Your task to perform on an android device: change your default location settings in chrome Image 0: 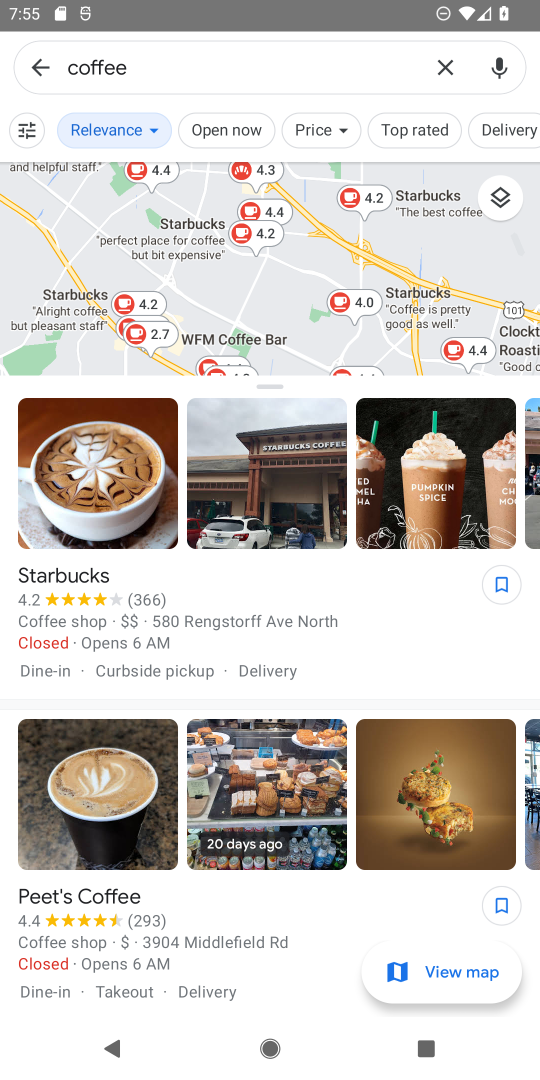
Step 0: press home button
Your task to perform on an android device: change your default location settings in chrome Image 1: 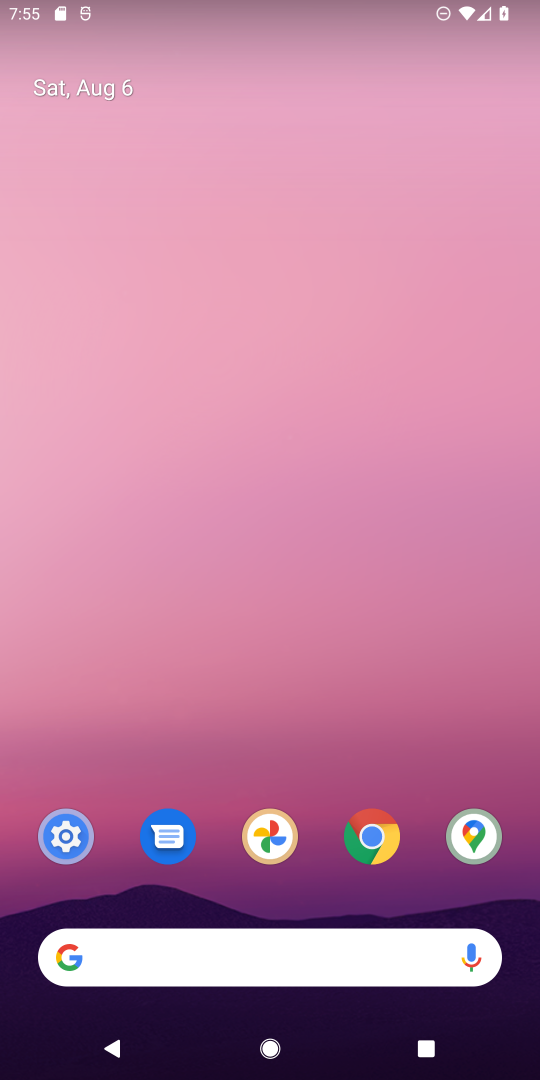
Step 1: click (373, 835)
Your task to perform on an android device: change your default location settings in chrome Image 2: 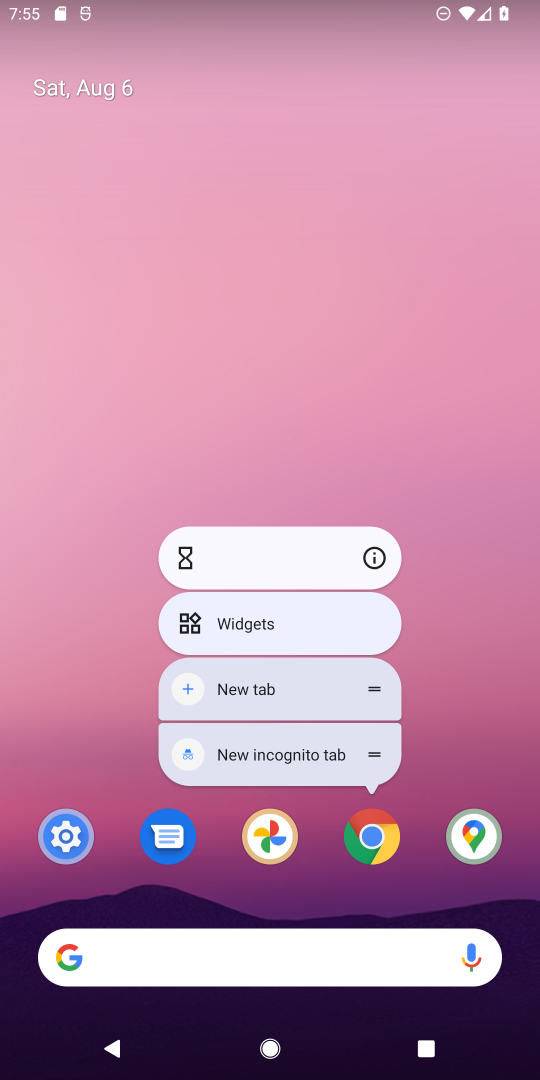
Step 2: click (373, 846)
Your task to perform on an android device: change your default location settings in chrome Image 3: 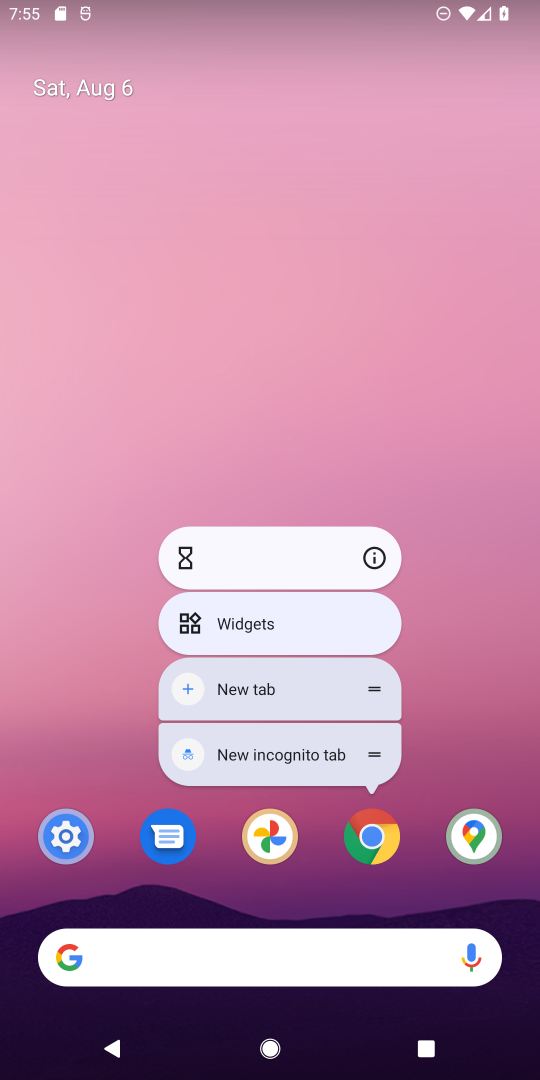
Step 3: click (373, 846)
Your task to perform on an android device: change your default location settings in chrome Image 4: 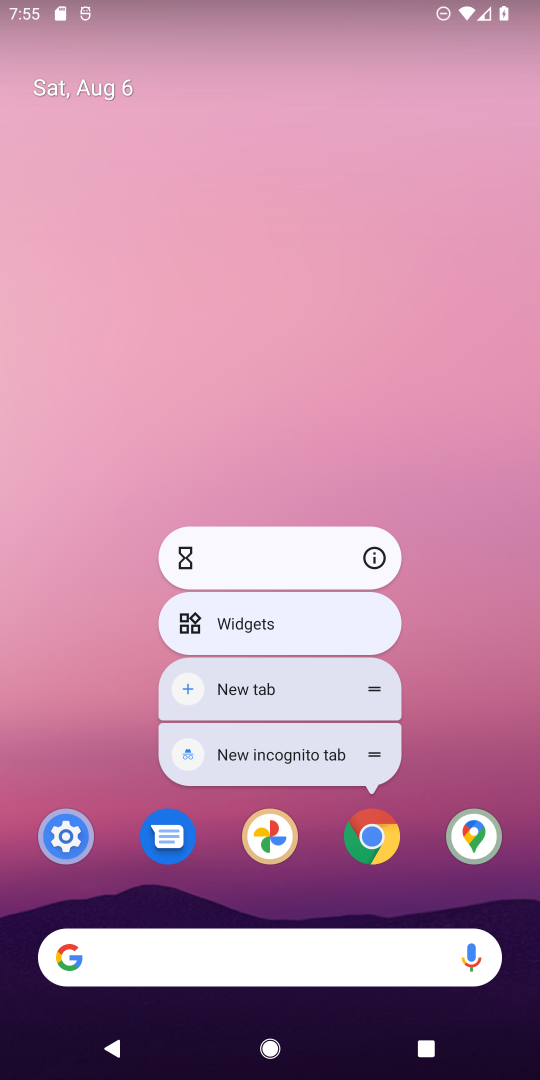
Step 4: click (371, 834)
Your task to perform on an android device: change your default location settings in chrome Image 5: 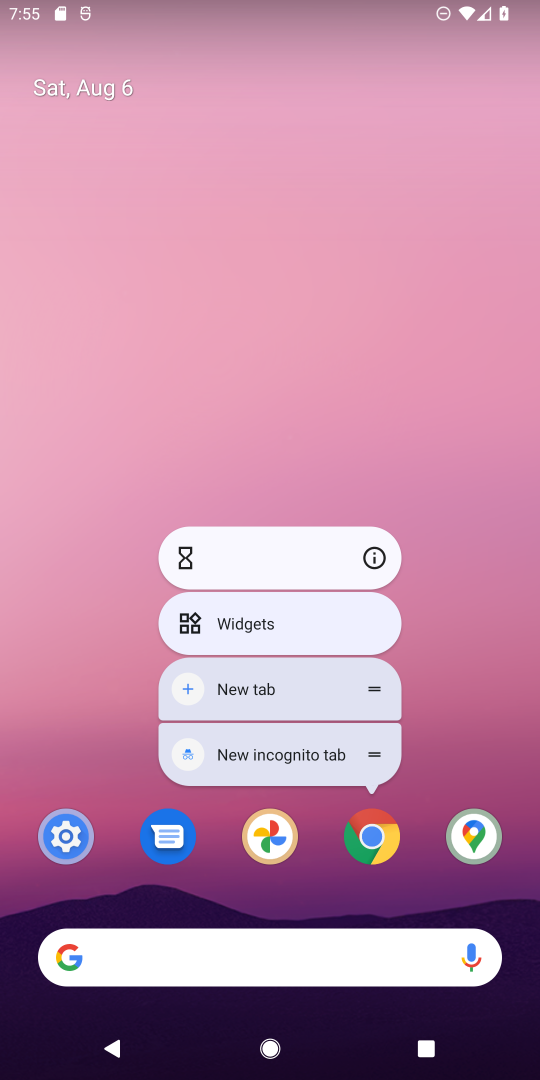
Step 5: click (371, 834)
Your task to perform on an android device: change your default location settings in chrome Image 6: 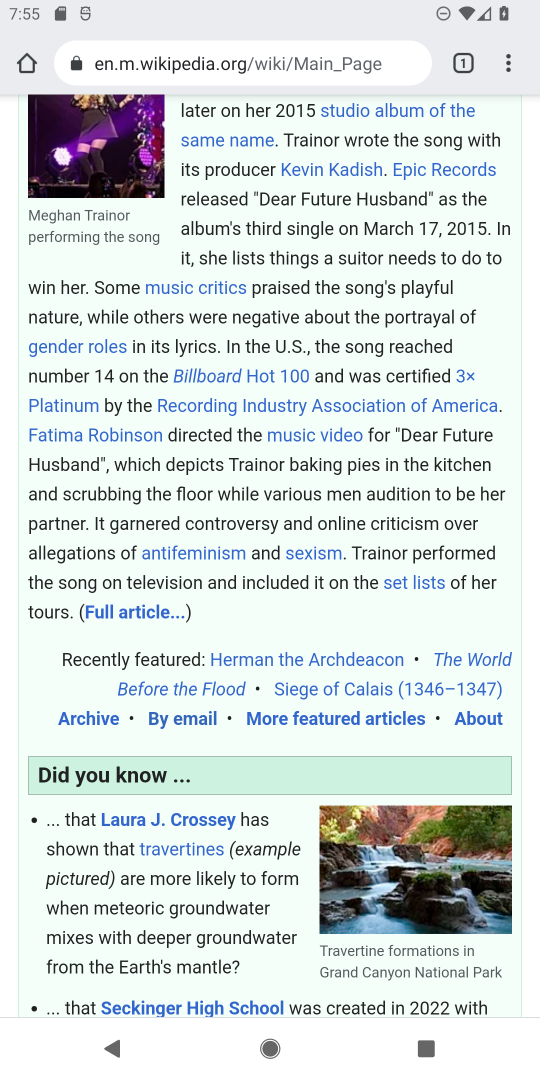
Step 6: click (503, 63)
Your task to perform on an android device: change your default location settings in chrome Image 7: 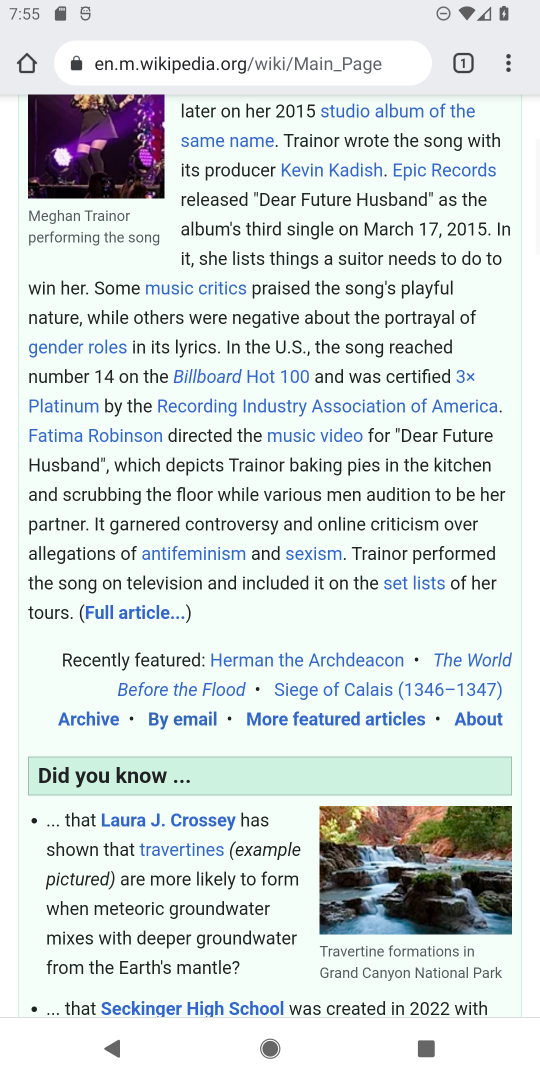
Step 7: click (503, 63)
Your task to perform on an android device: change your default location settings in chrome Image 8: 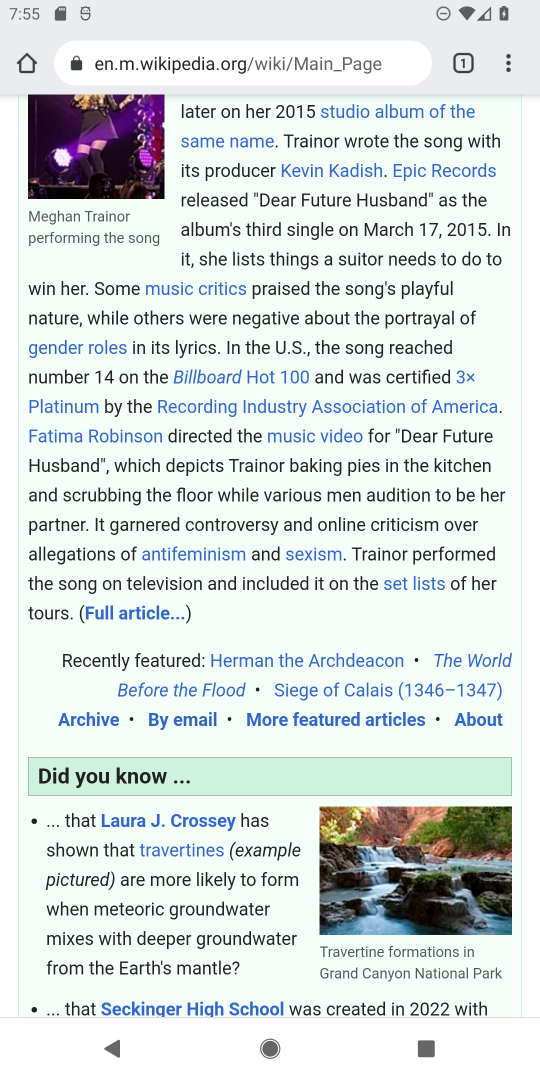
Step 8: click (503, 63)
Your task to perform on an android device: change your default location settings in chrome Image 9: 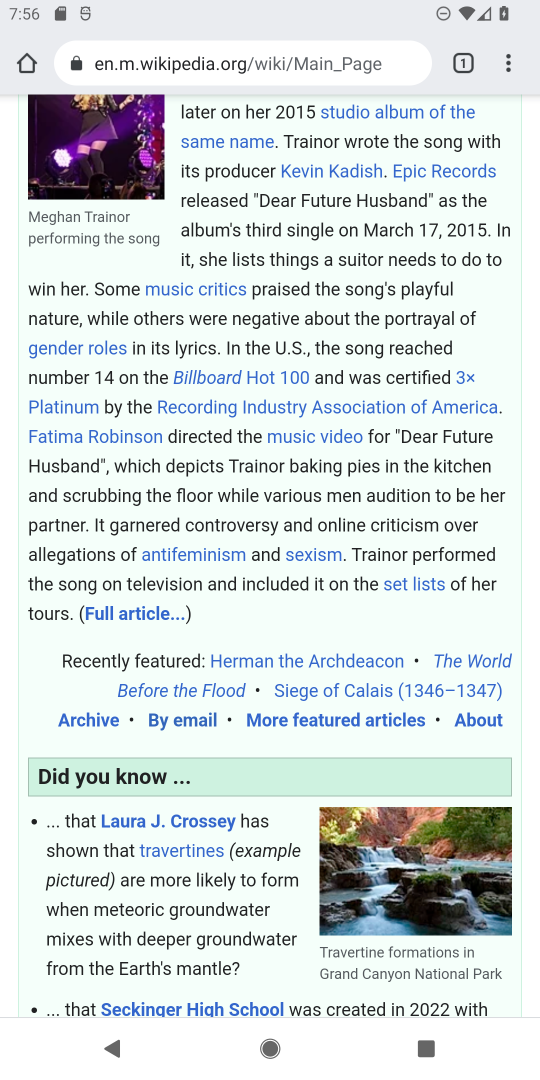
Step 9: click (504, 68)
Your task to perform on an android device: change your default location settings in chrome Image 10: 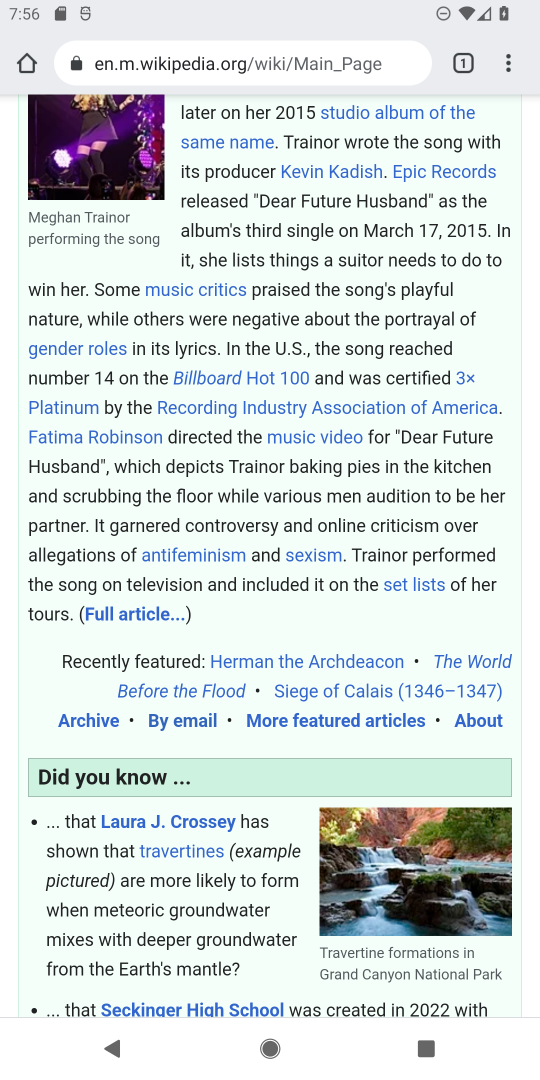
Step 10: click (504, 68)
Your task to perform on an android device: change your default location settings in chrome Image 11: 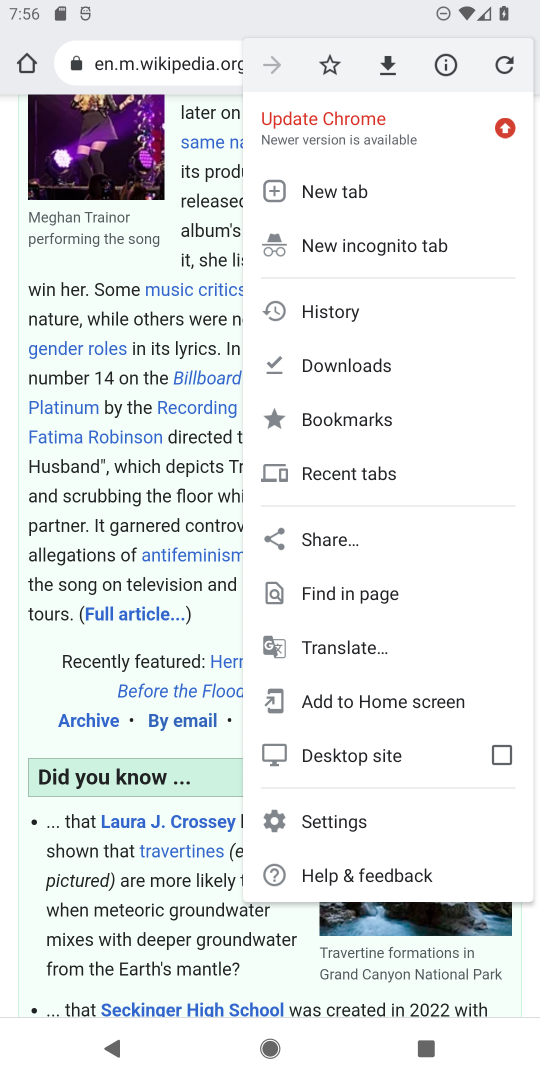
Step 11: click (339, 832)
Your task to perform on an android device: change your default location settings in chrome Image 12: 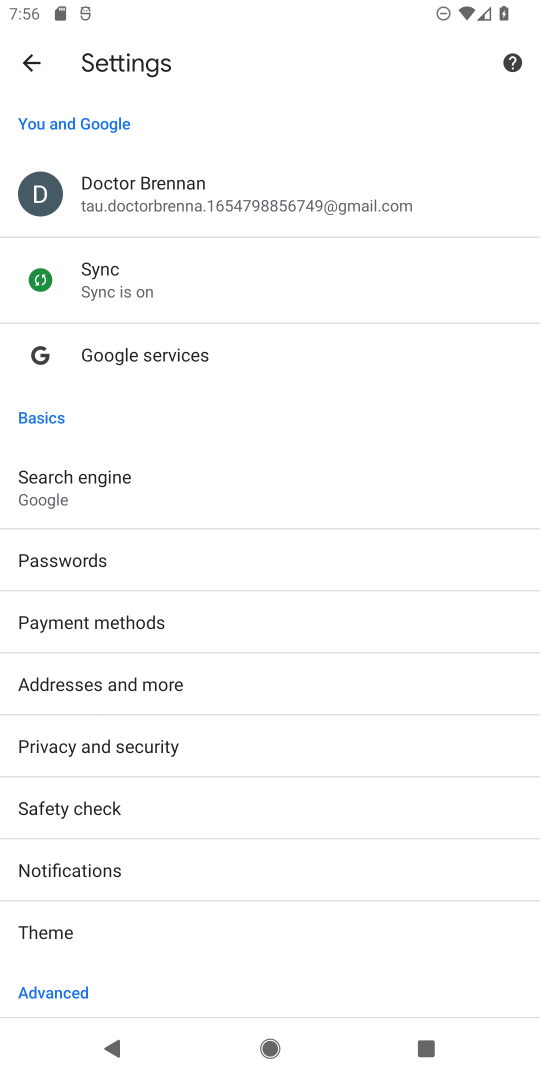
Step 12: drag from (53, 958) to (66, 602)
Your task to perform on an android device: change your default location settings in chrome Image 13: 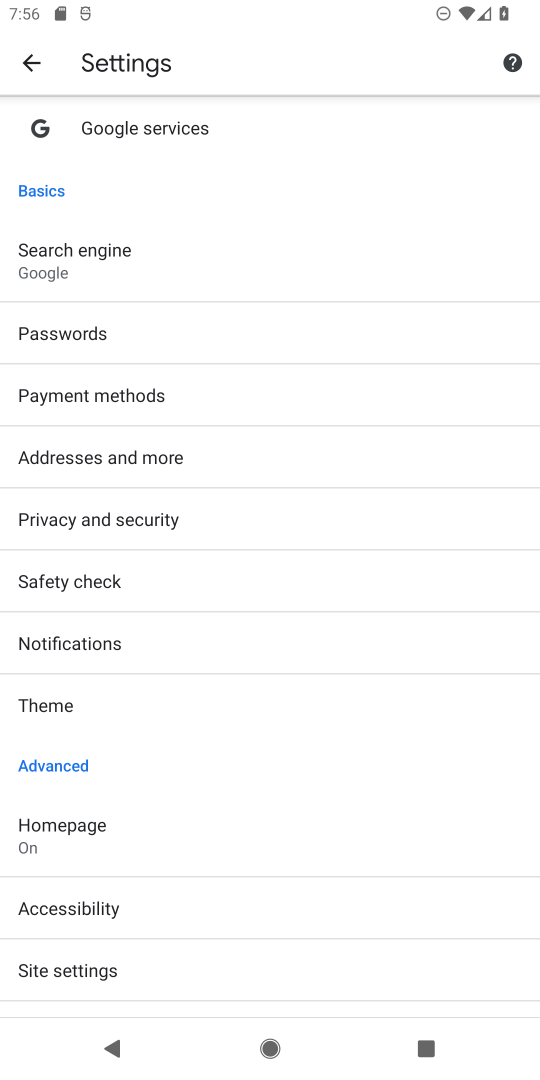
Step 13: click (78, 966)
Your task to perform on an android device: change your default location settings in chrome Image 14: 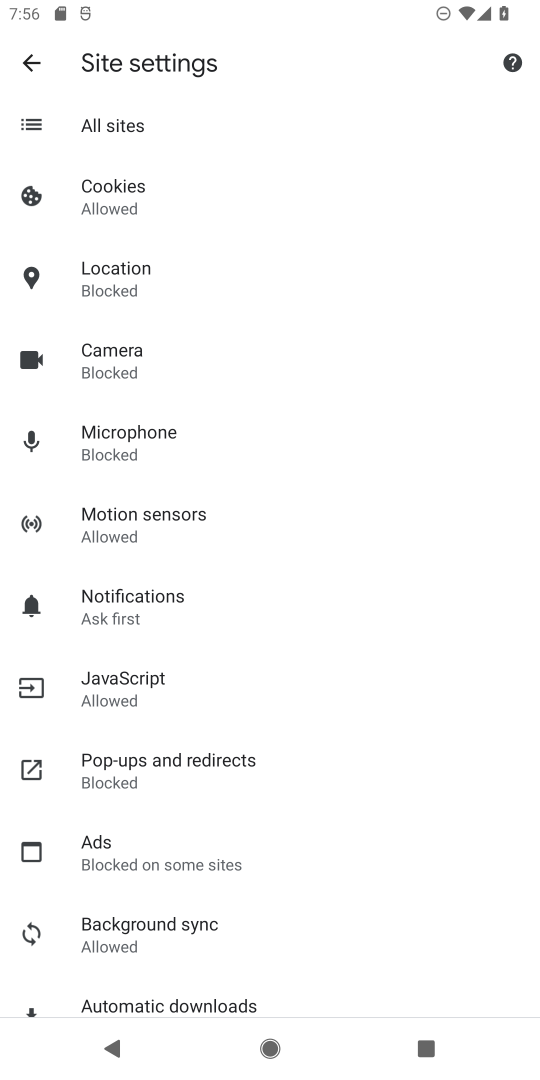
Step 14: click (131, 277)
Your task to perform on an android device: change your default location settings in chrome Image 15: 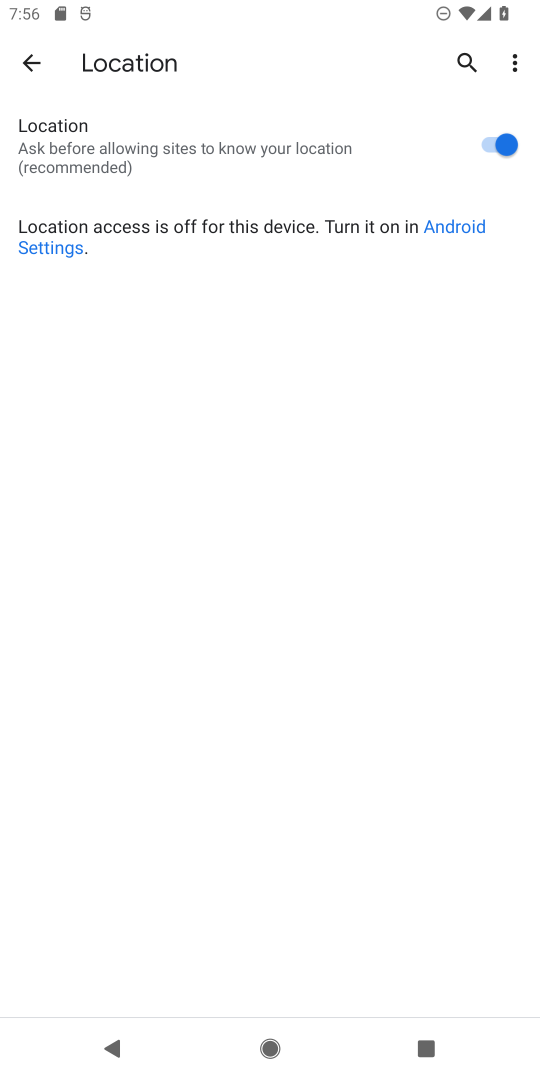
Step 15: click (486, 141)
Your task to perform on an android device: change your default location settings in chrome Image 16: 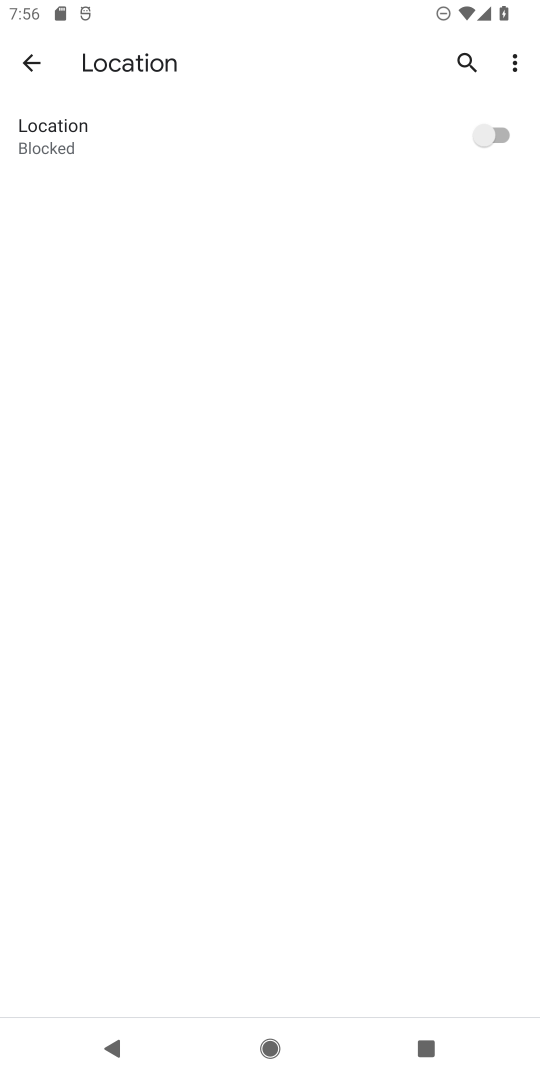
Step 16: task complete